Your task to perform on an android device: set the stopwatch Image 0: 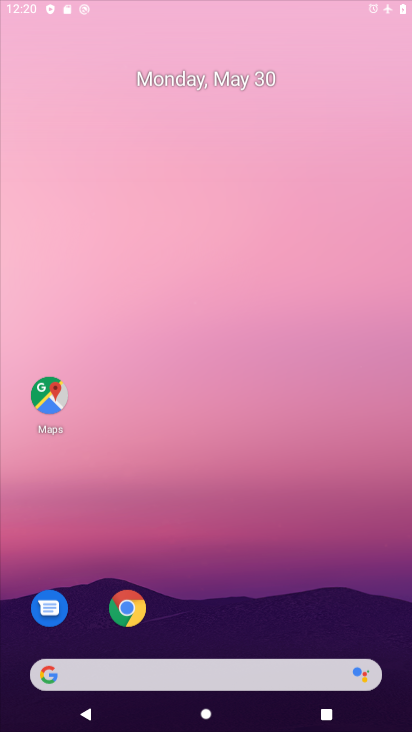
Step 0: click (81, 565)
Your task to perform on an android device: set the stopwatch Image 1: 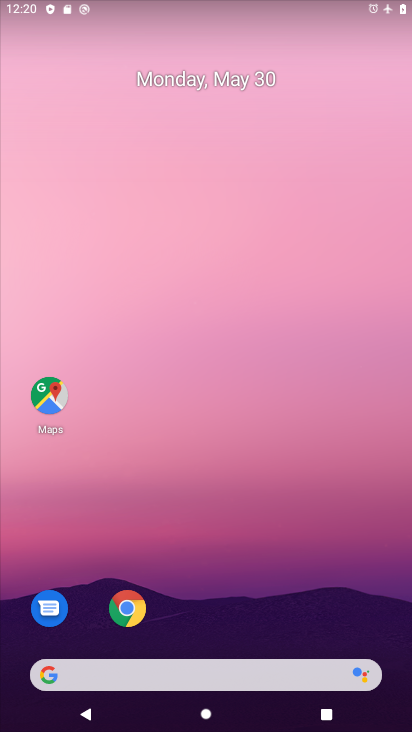
Step 1: drag from (190, 636) to (103, 24)
Your task to perform on an android device: set the stopwatch Image 2: 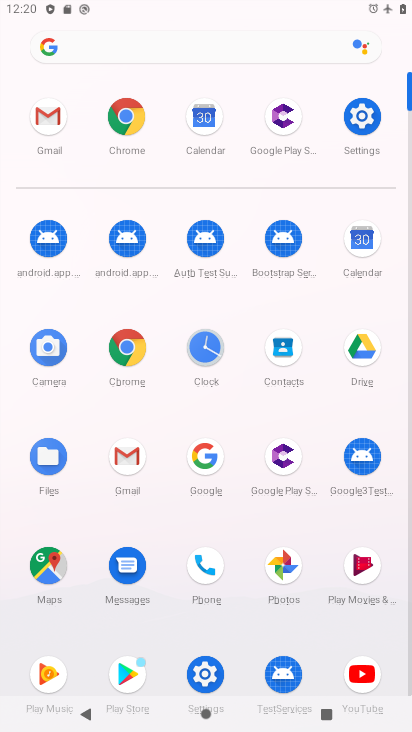
Step 2: click (203, 356)
Your task to perform on an android device: set the stopwatch Image 3: 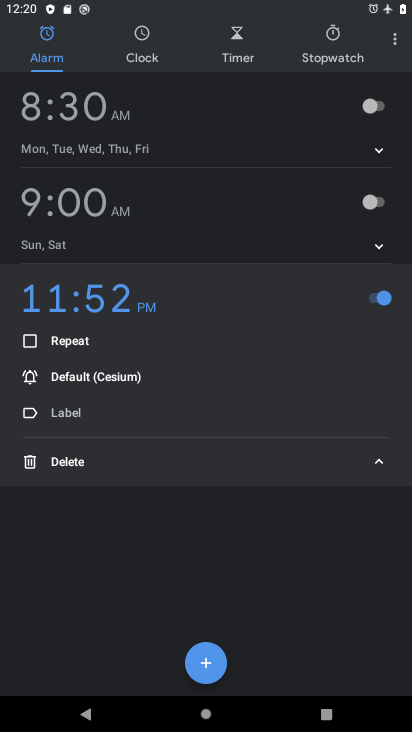
Step 3: click (328, 48)
Your task to perform on an android device: set the stopwatch Image 4: 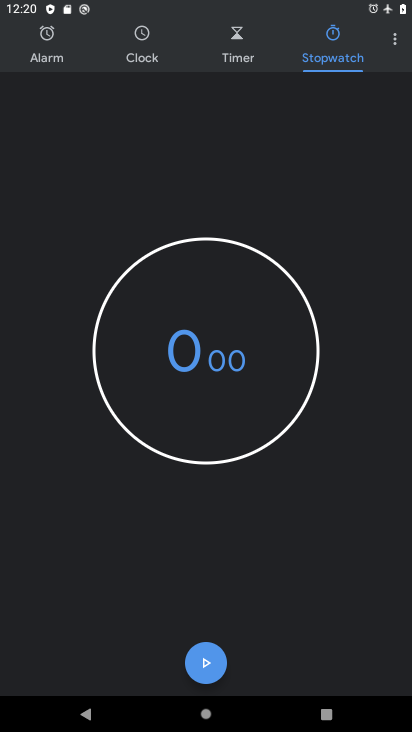
Step 4: click (221, 668)
Your task to perform on an android device: set the stopwatch Image 5: 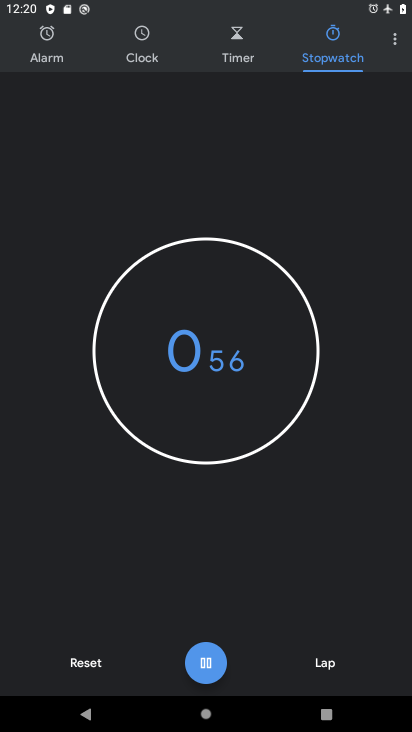
Step 5: click (219, 666)
Your task to perform on an android device: set the stopwatch Image 6: 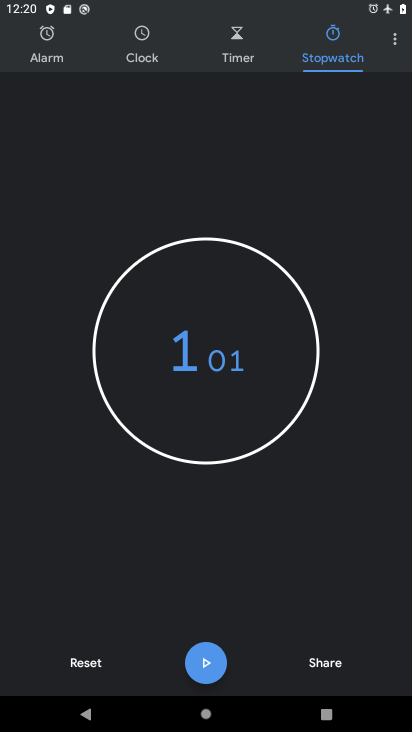
Step 6: task complete